Your task to perform on an android device: What's the weather going to be tomorrow? Image 0: 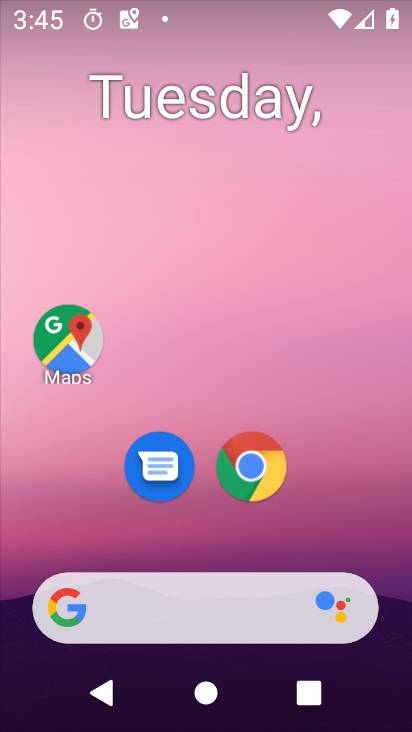
Step 0: click (243, 606)
Your task to perform on an android device: What's the weather going to be tomorrow? Image 1: 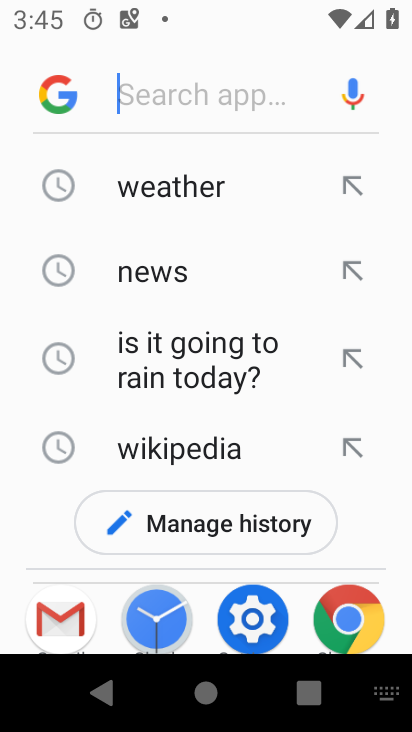
Step 1: click (210, 182)
Your task to perform on an android device: What's the weather going to be tomorrow? Image 2: 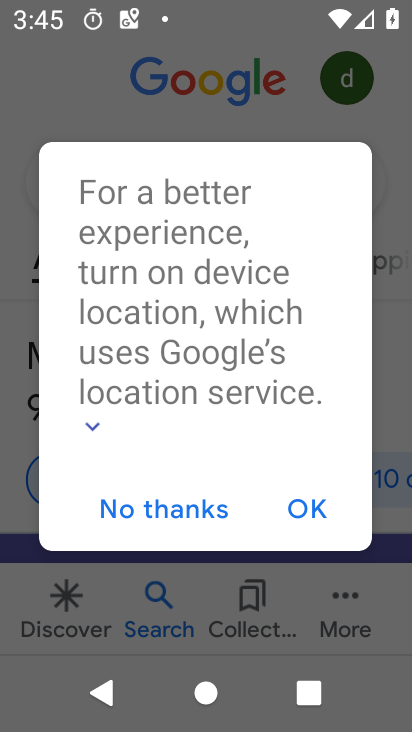
Step 2: click (197, 507)
Your task to perform on an android device: What's the weather going to be tomorrow? Image 3: 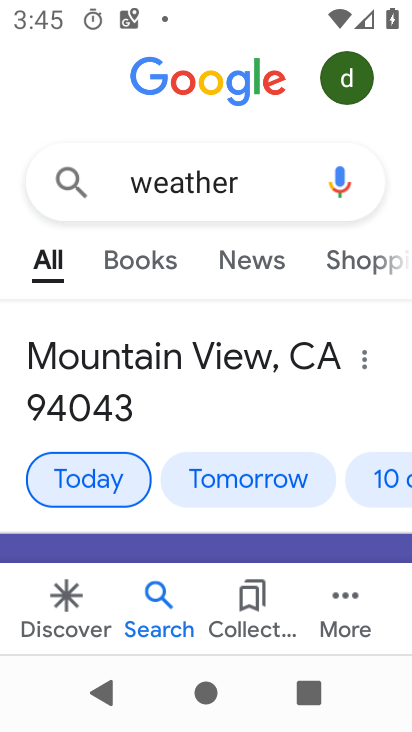
Step 3: click (252, 486)
Your task to perform on an android device: What's the weather going to be tomorrow? Image 4: 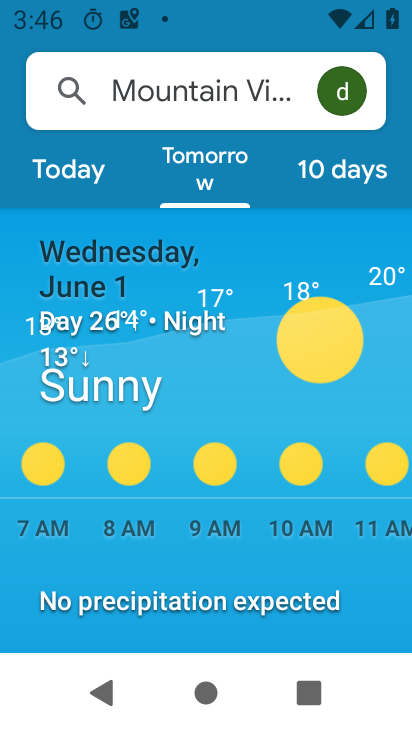
Step 4: task complete